Your task to perform on an android device: turn on javascript in the chrome app Image 0: 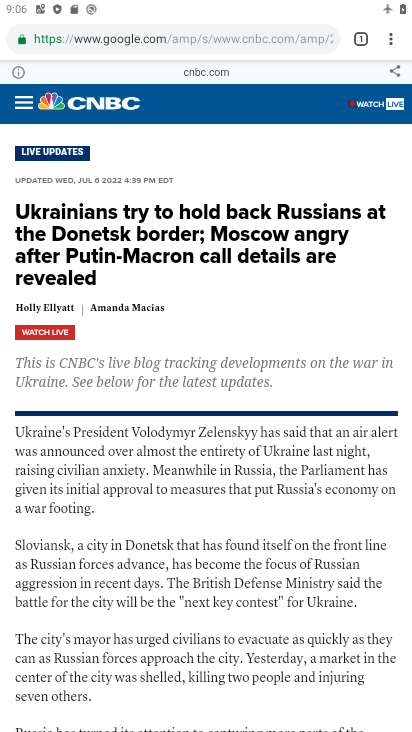
Step 0: click (386, 39)
Your task to perform on an android device: turn on javascript in the chrome app Image 1: 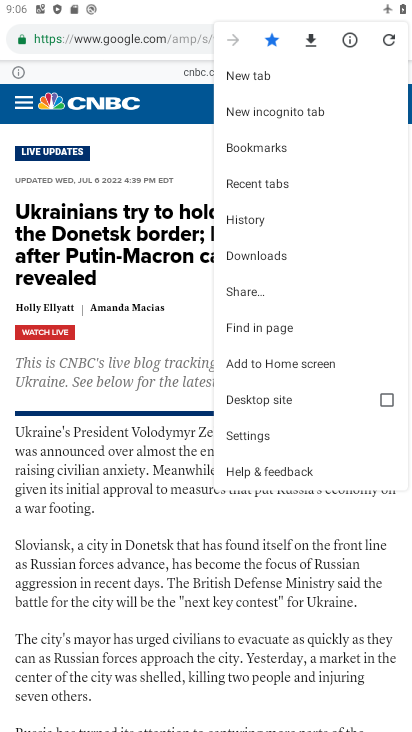
Step 1: click (274, 429)
Your task to perform on an android device: turn on javascript in the chrome app Image 2: 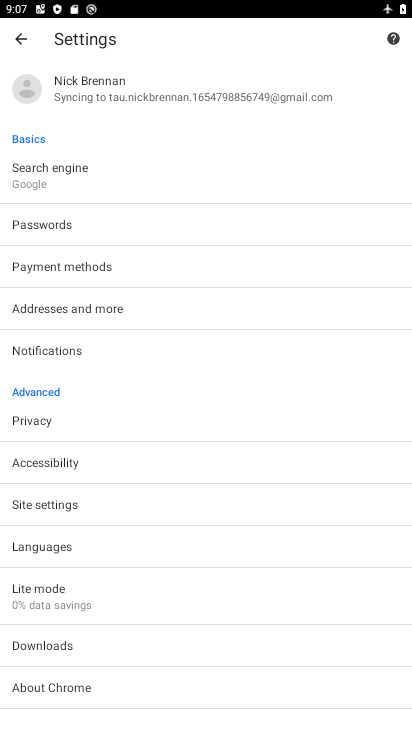
Step 2: click (103, 512)
Your task to perform on an android device: turn on javascript in the chrome app Image 3: 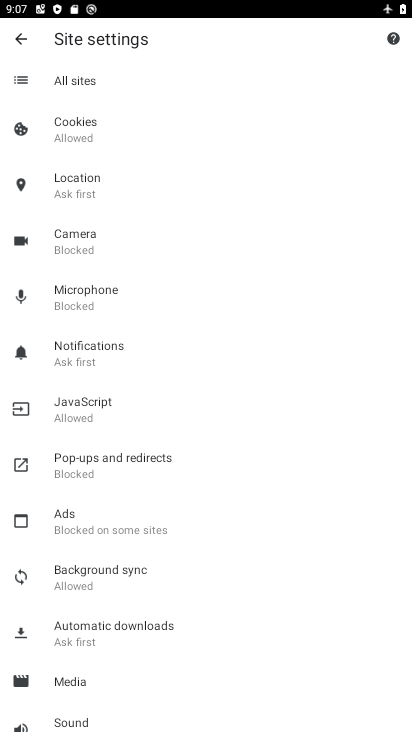
Step 3: click (182, 397)
Your task to perform on an android device: turn on javascript in the chrome app Image 4: 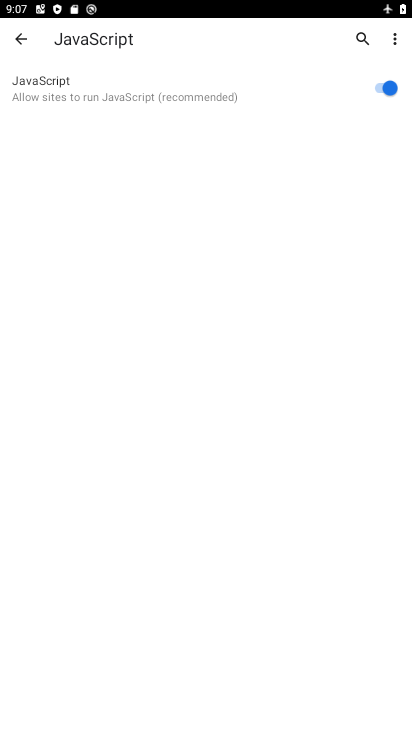
Step 4: task complete